Your task to perform on an android device: Go to internet settings Image 0: 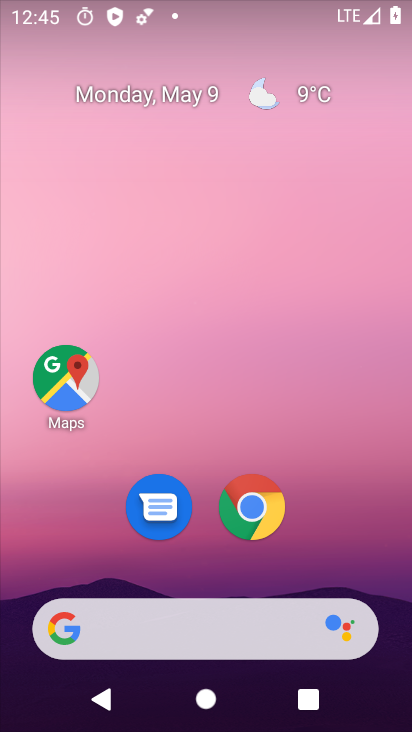
Step 0: drag from (227, 721) to (204, 57)
Your task to perform on an android device: Go to internet settings Image 1: 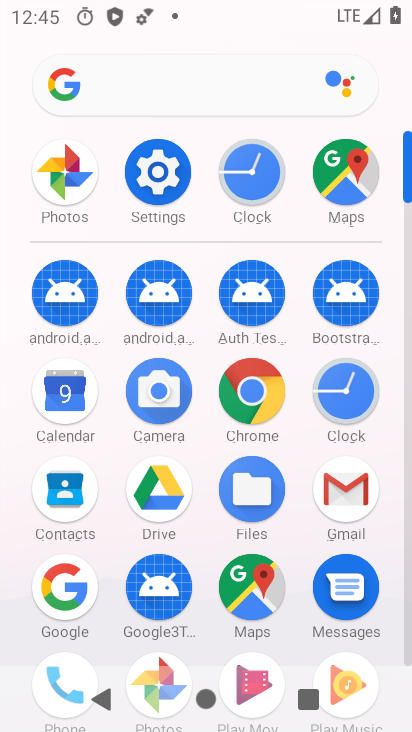
Step 1: click (158, 175)
Your task to perform on an android device: Go to internet settings Image 2: 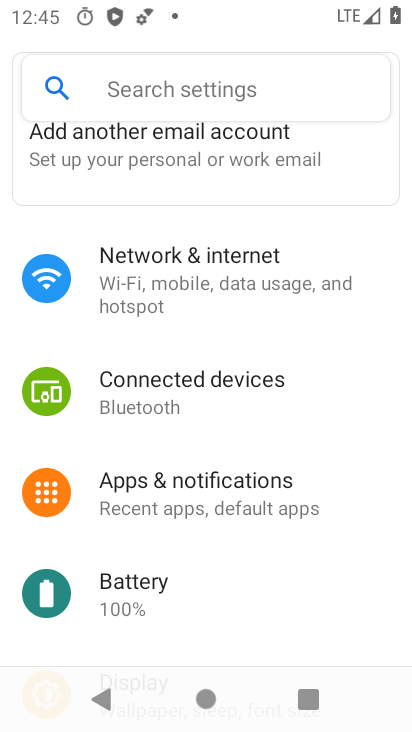
Step 2: click (214, 260)
Your task to perform on an android device: Go to internet settings Image 3: 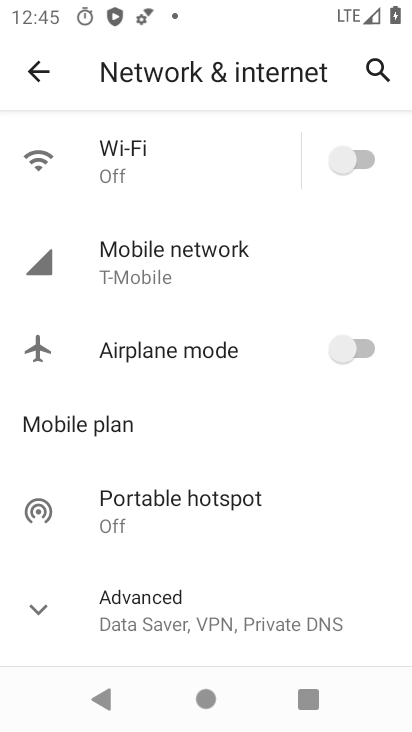
Step 3: task complete